Your task to perform on an android device: Go to display settings Image 0: 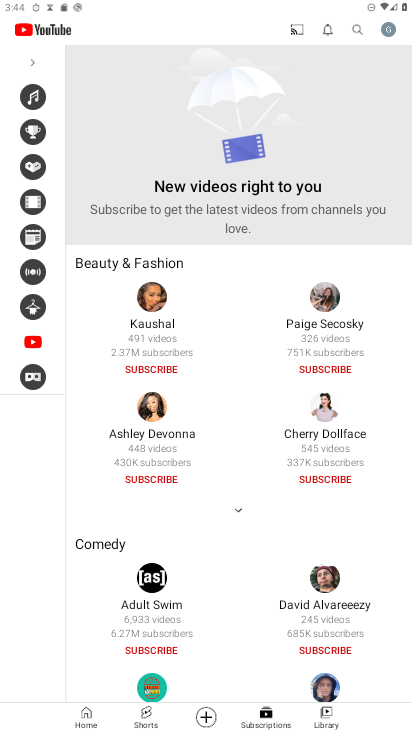
Step 0: press home button
Your task to perform on an android device: Go to display settings Image 1: 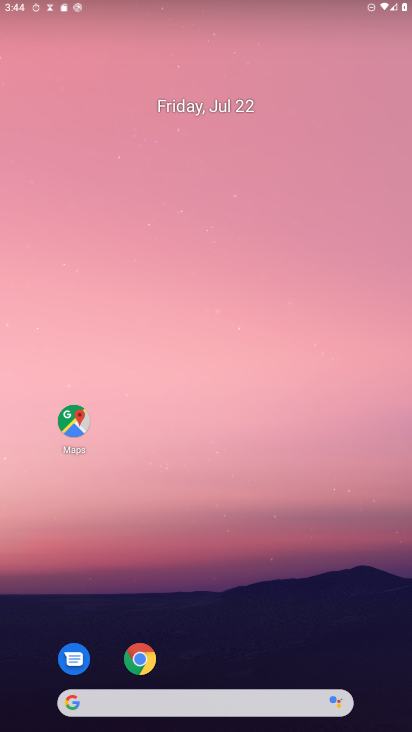
Step 1: drag from (193, 645) to (278, 150)
Your task to perform on an android device: Go to display settings Image 2: 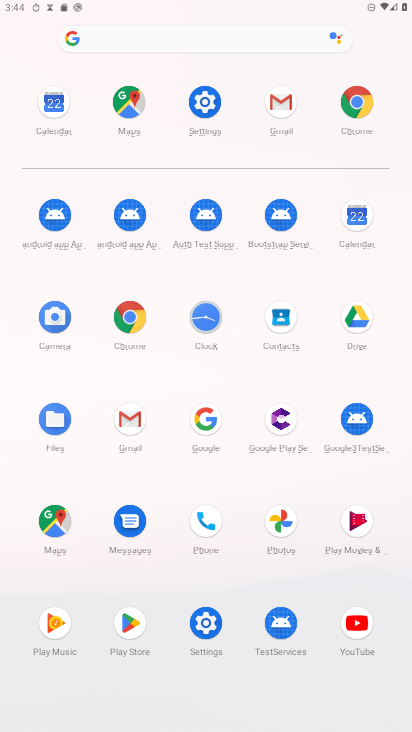
Step 2: click (216, 104)
Your task to perform on an android device: Go to display settings Image 3: 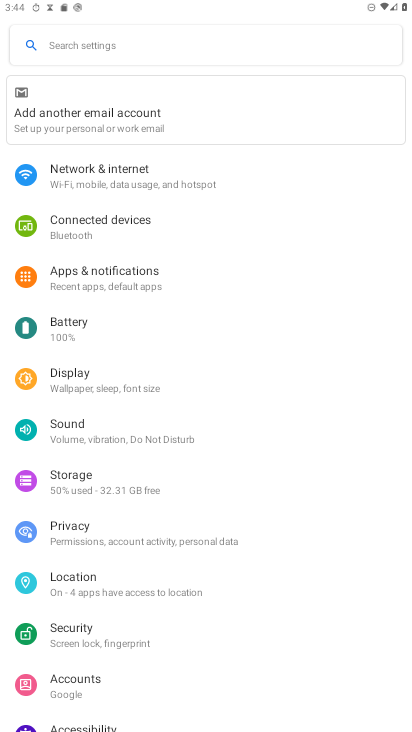
Step 3: click (113, 383)
Your task to perform on an android device: Go to display settings Image 4: 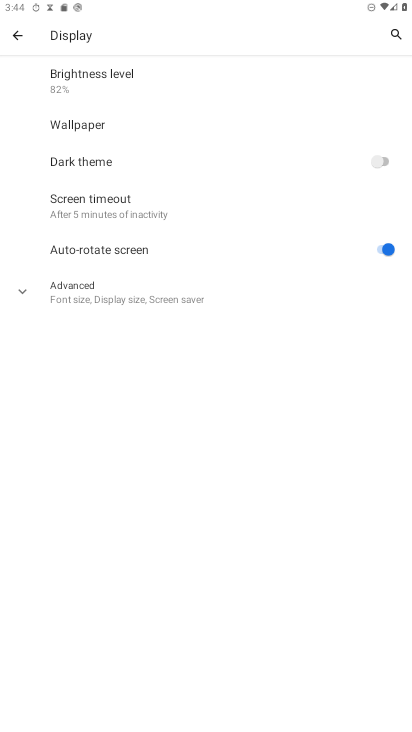
Step 4: task complete